Your task to perform on an android device: Open calendar and show me the first week of next month Image 0: 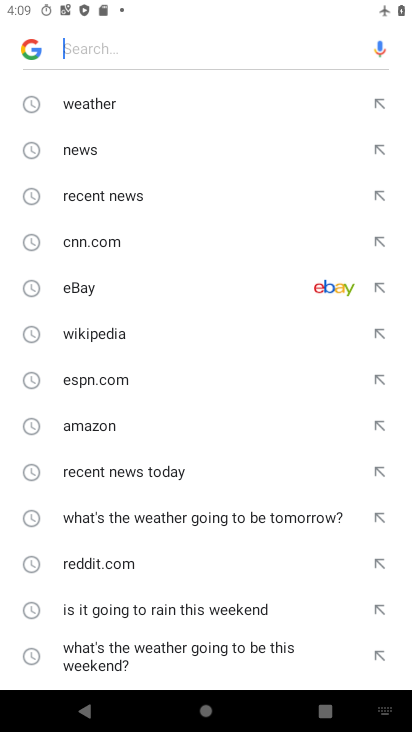
Step 0: press home button
Your task to perform on an android device: Open calendar and show me the first week of next month Image 1: 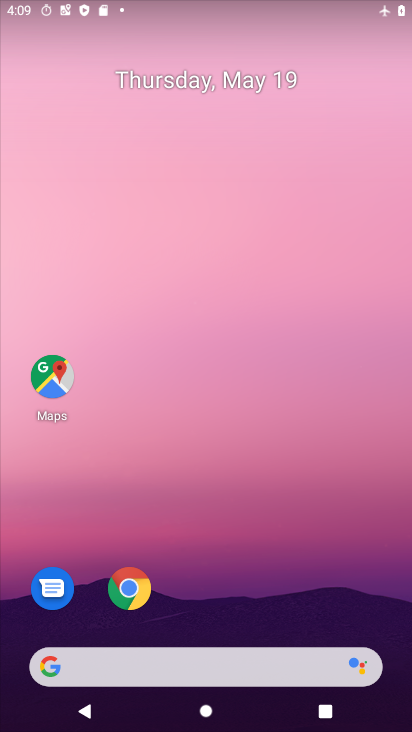
Step 1: drag from (178, 608) to (232, 209)
Your task to perform on an android device: Open calendar and show me the first week of next month Image 2: 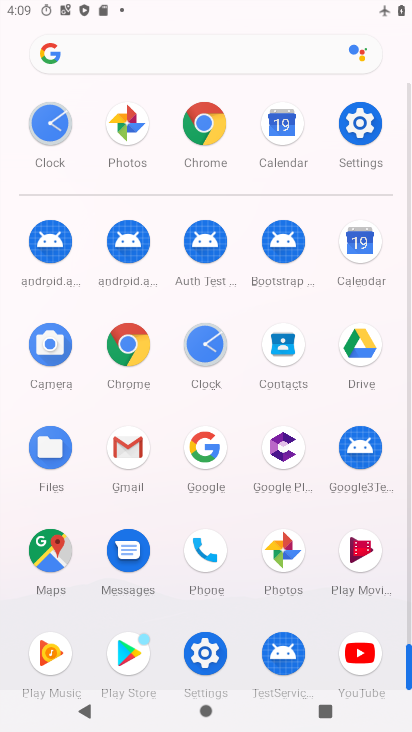
Step 2: click (358, 262)
Your task to perform on an android device: Open calendar and show me the first week of next month Image 3: 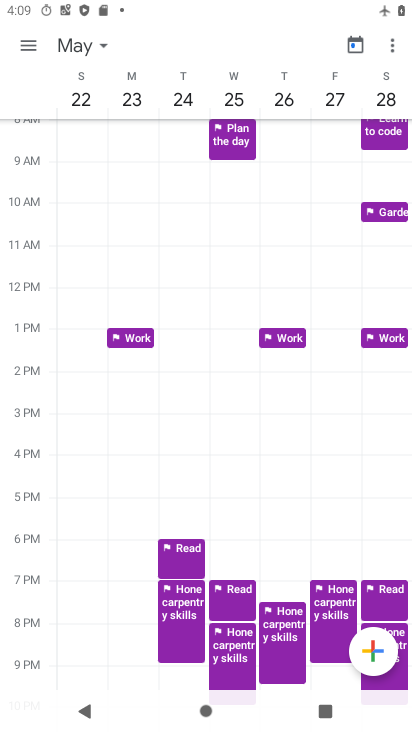
Step 3: task complete